Your task to perform on an android device: set default search engine in the chrome app Image 0: 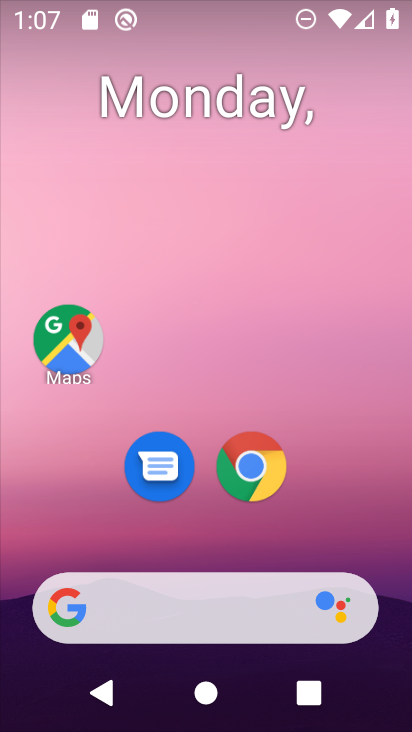
Step 0: click (263, 473)
Your task to perform on an android device: set default search engine in the chrome app Image 1: 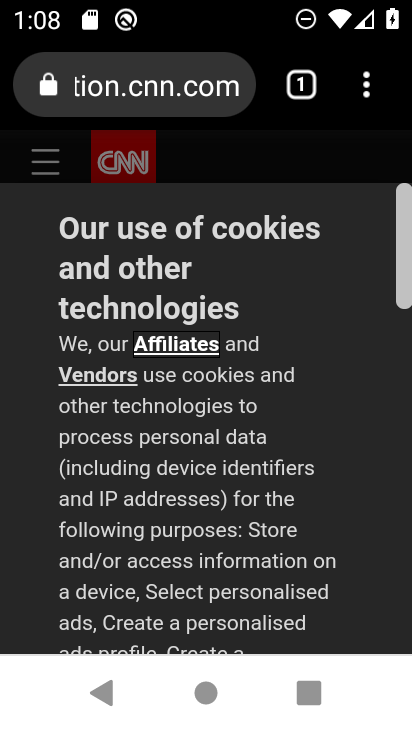
Step 1: click (374, 96)
Your task to perform on an android device: set default search engine in the chrome app Image 2: 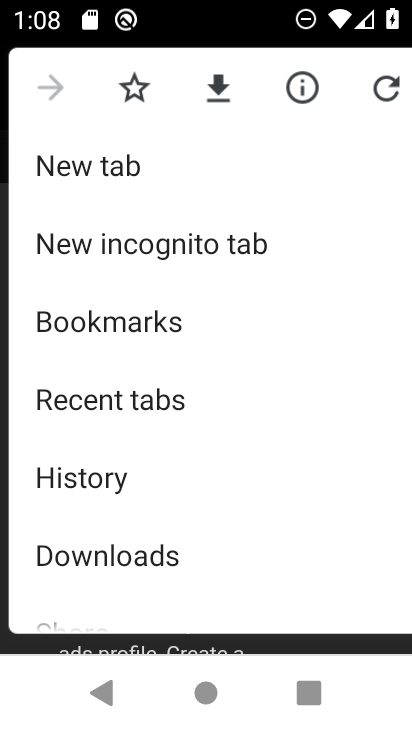
Step 2: drag from (141, 508) to (222, 15)
Your task to perform on an android device: set default search engine in the chrome app Image 3: 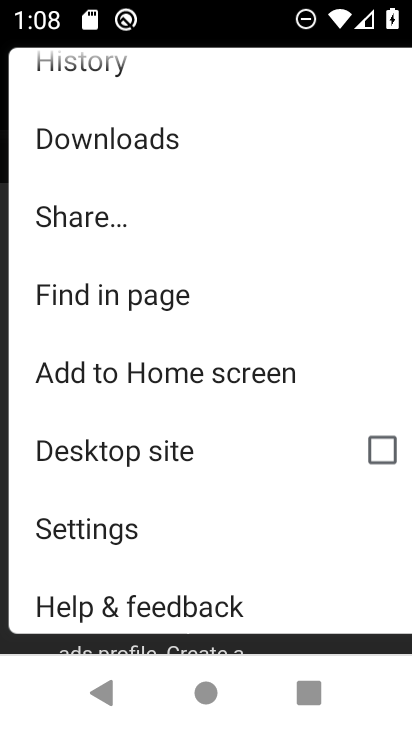
Step 3: click (117, 507)
Your task to perform on an android device: set default search engine in the chrome app Image 4: 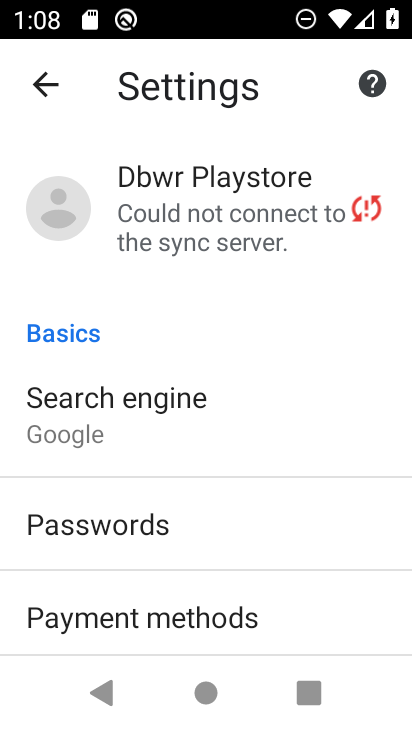
Step 4: click (166, 427)
Your task to perform on an android device: set default search engine in the chrome app Image 5: 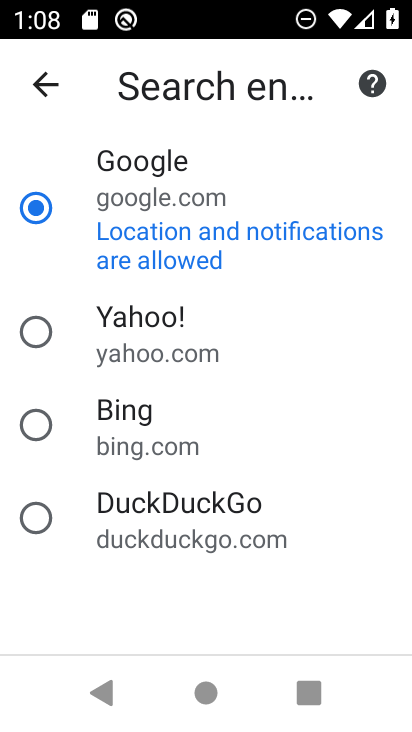
Step 5: click (163, 238)
Your task to perform on an android device: set default search engine in the chrome app Image 6: 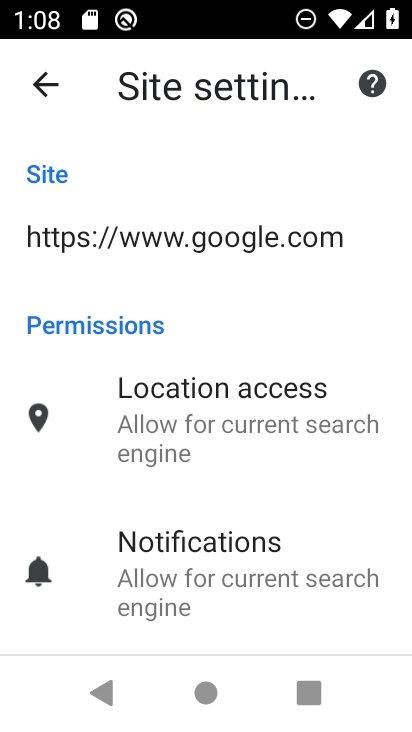
Step 6: drag from (207, 499) to (278, 133)
Your task to perform on an android device: set default search engine in the chrome app Image 7: 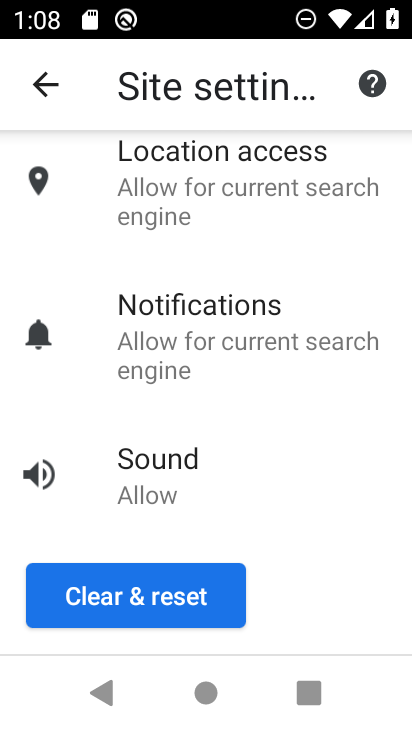
Step 7: click (150, 596)
Your task to perform on an android device: set default search engine in the chrome app Image 8: 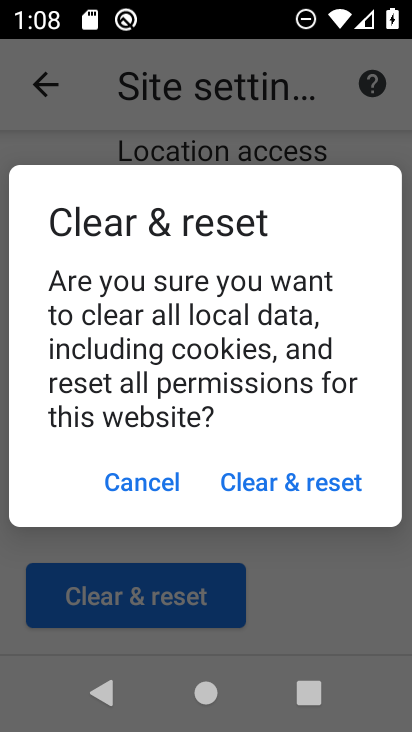
Step 8: click (299, 483)
Your task to perform on an android device: set default search engine in the chrome app Image 9: 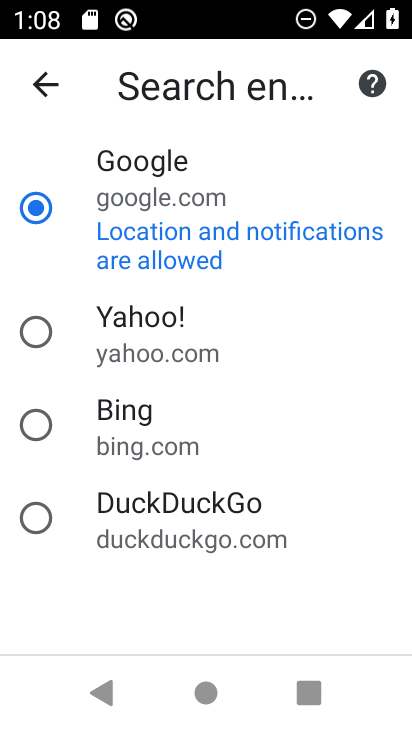
Step 9: task complete